Your task to perform on an android device: Go to battery settings Image 0: 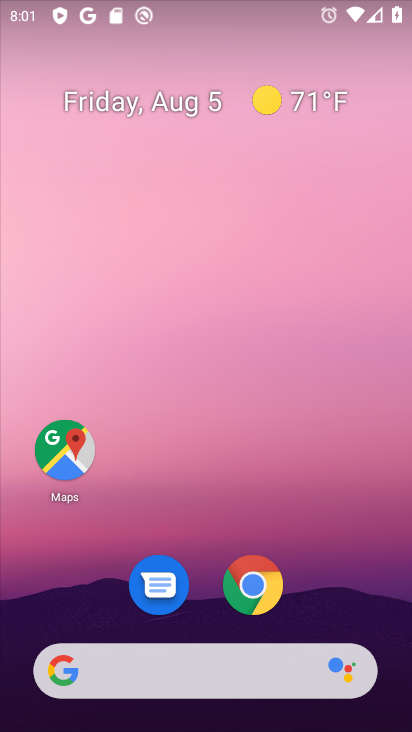
Step 0: drag from (322, 599) to (294, 105)
Your task to perform on an android device: Go to battery settings Image 1: 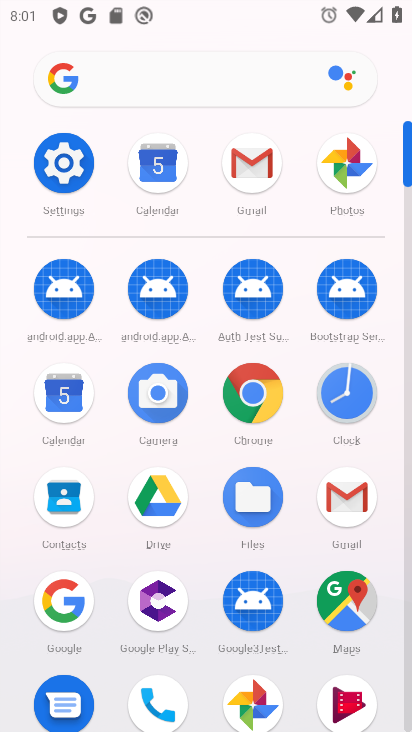
Step 1: click (78, 165)
Your task to perform on an android device: Go to battery settings Image 2: 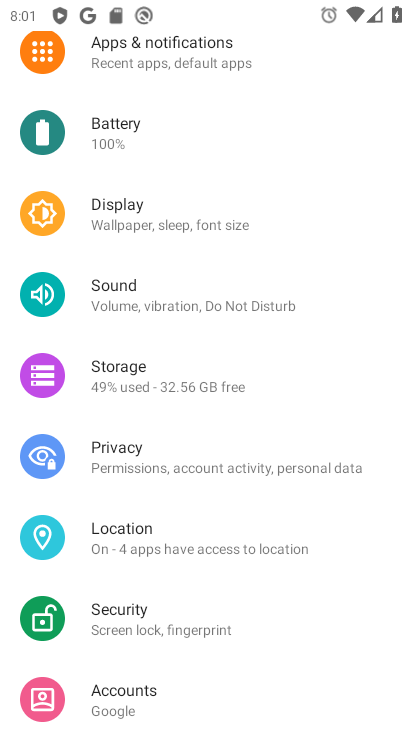
Step 2: click (146, 121)
Your task to perform on an android device: Go to battery settings Image 3: 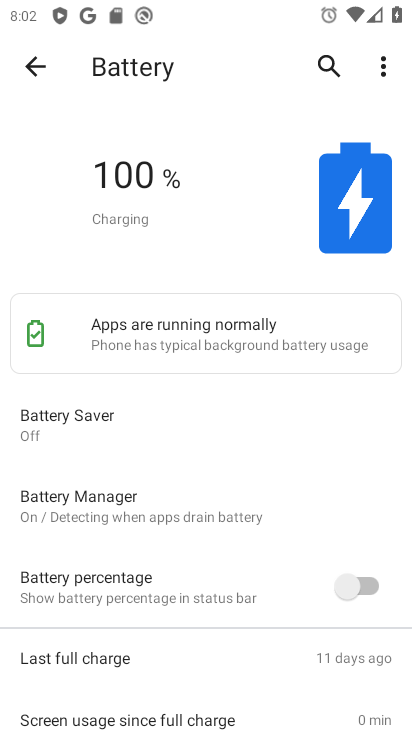
Step 3: task complete